Your task to perform on an android device: stop showing notifications on the lock screen Image 0: 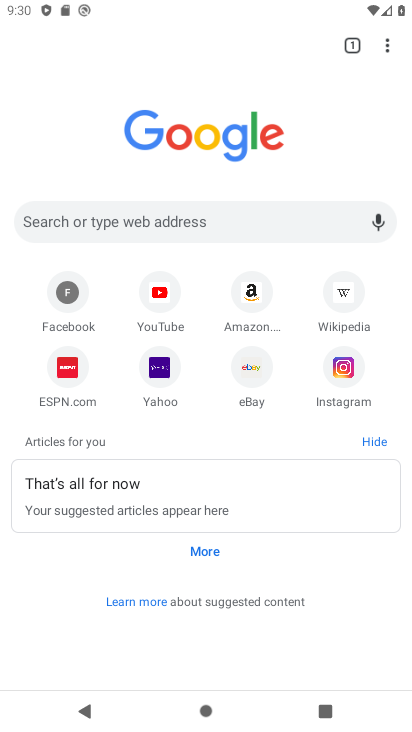
Step 0: press home button
Your task to perform on an android device: stop showing notifications on the lock screen Image 1: 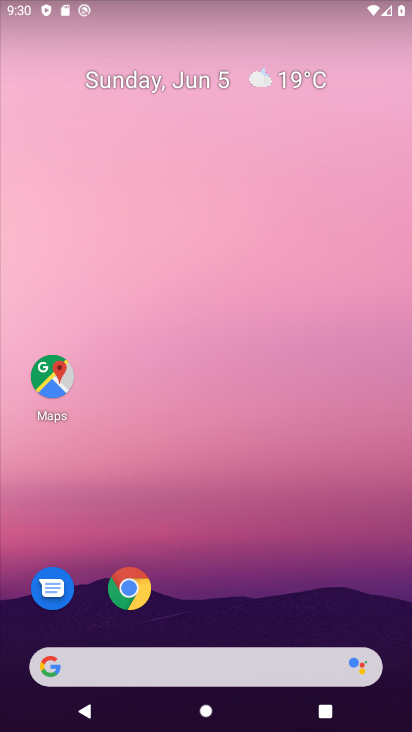
Step 1: drag from (327, 545) to (361, 135)
Your task to perform on an android device: stop showing notifications on the lock screen Image 2: 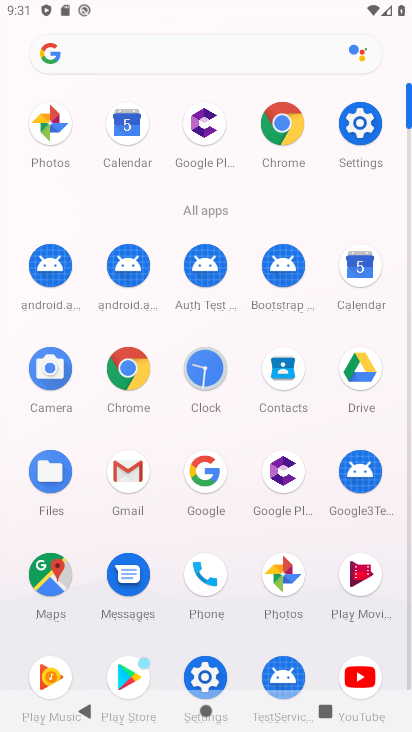
Step 2: click (366, 118)
Your task to perform on an android device: stop showing notifications on the lock screen Image 3: 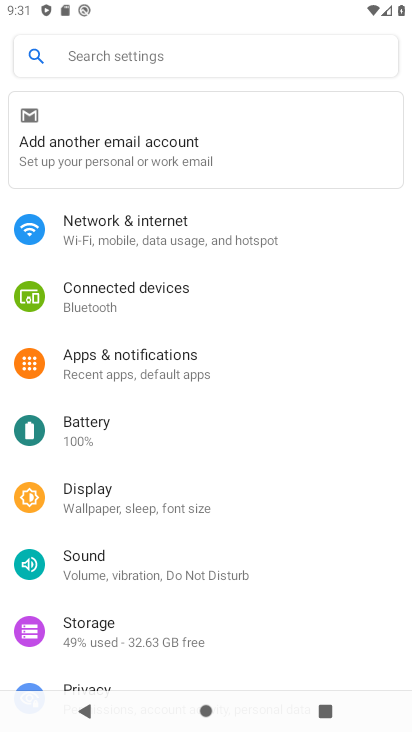
Step 3: drag from (342, 502) to (338, 335)
Your task to perform on an android device: stop showing notifications on the lock screen Image 4: 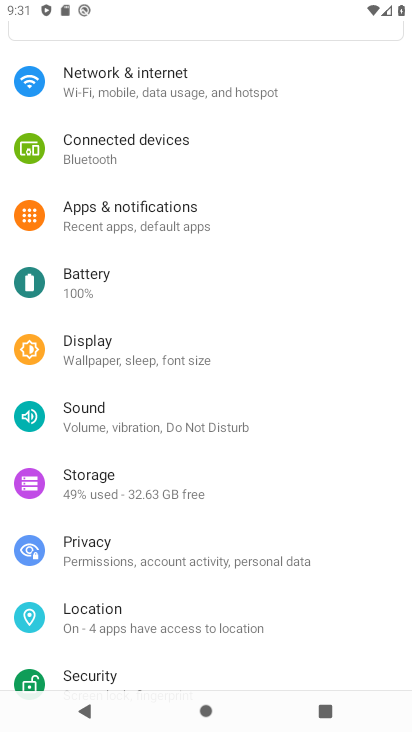
Step 4: drag from (355, 578) to (367, 358)
Your task to perform on an android device: stop showing notifications on the lock screen Image 5: 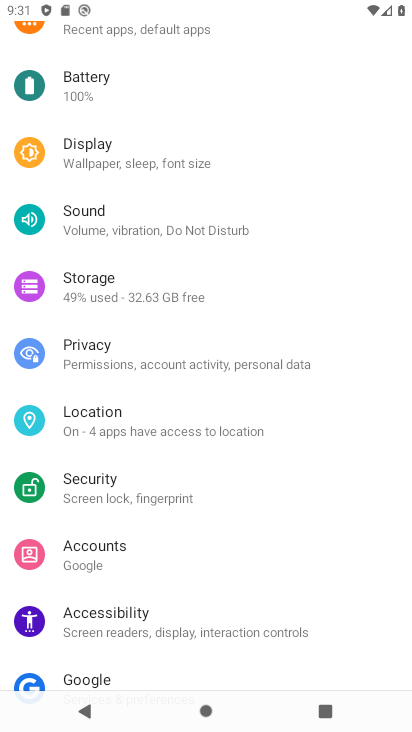
Step 5: drag from (344, 551) to (340, 424)
Your task to perform on an android device: stop showing notifications on the lock screen Image 6: 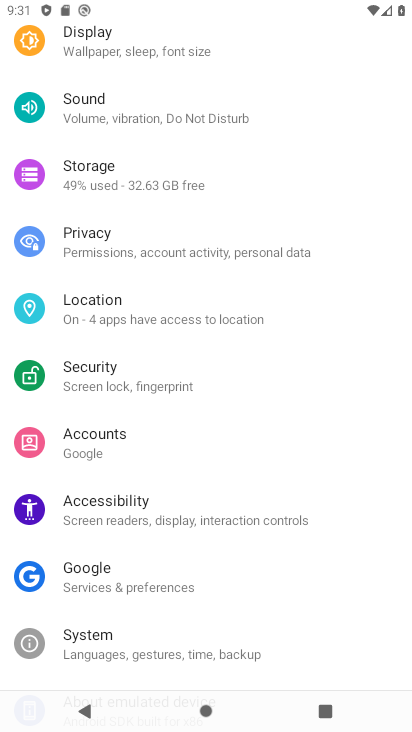
Step 6: drag from (341, 609) to (335, 383)
Your task to perform on an android device: stop showing notifications on the lock screen Image 7: 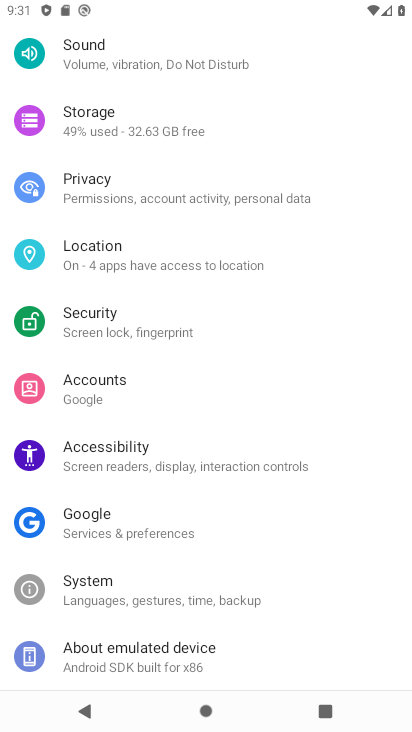
Step 7: drag from (362, 262) to (340, 401)
Your task to perform on an android device: stop showing notifications on the lock screen Image 8: 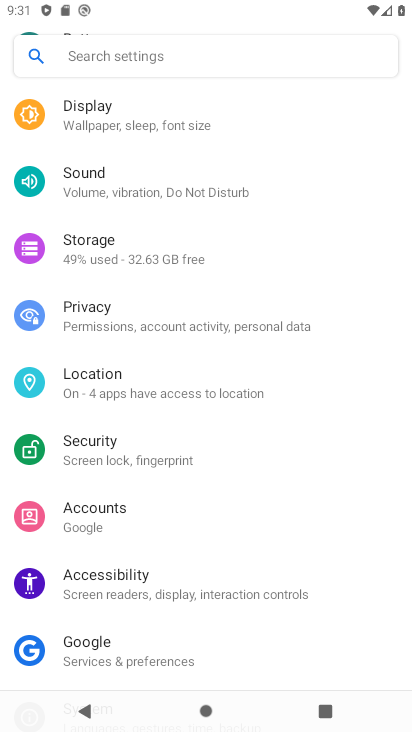
Step 8: drag from (357, 223) to (361, 337)
Your task to perform on an android device: stop showing notifications on the lock screen Image 9: 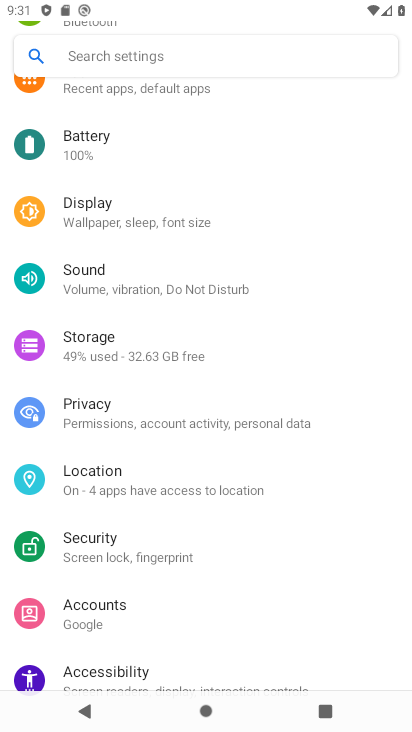
Step 9: drag from (361, 225) to (354, 365)
Your task to perform on an android device: stop showing notifications on the lock screen Image 10: 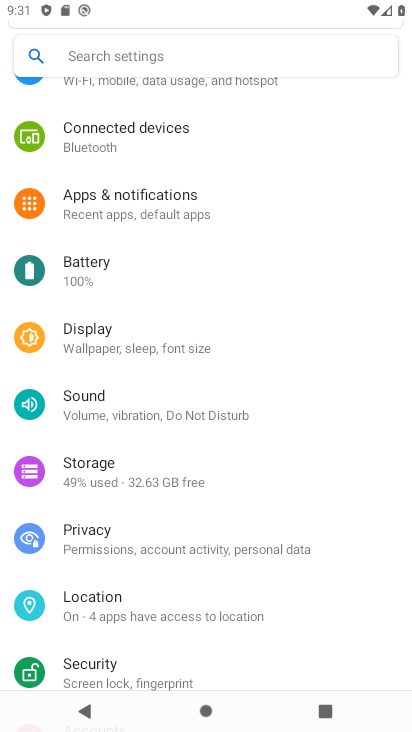
Step 10: drag from (327, 217) to (323, 370)
Your task to perform on an android device: stop showing notifications on the lock screen Image 11: 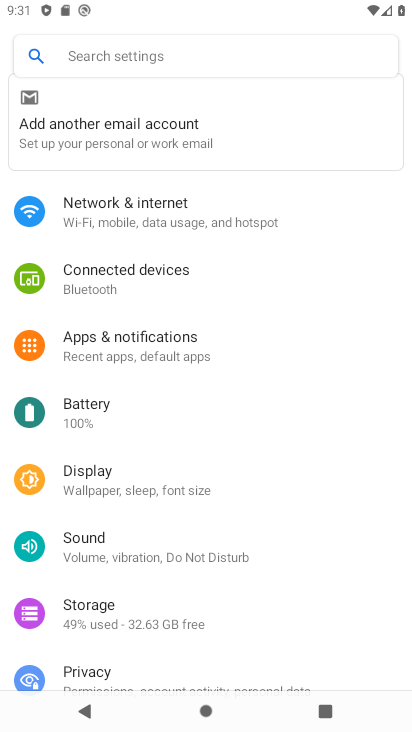
Step 11: click (226, 364)
Your task to perform on an android device: stop showing notifications on the lock screen Image 12: 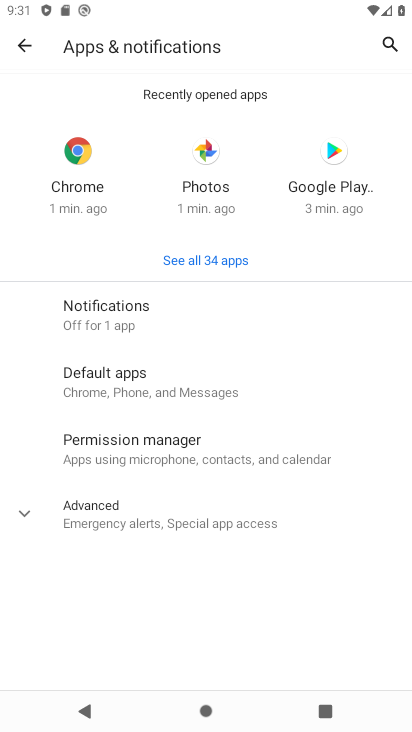
Step 12: click (150, 331)
Your task to perform on an android device: stop showing notifications on the lock screen Image 13: 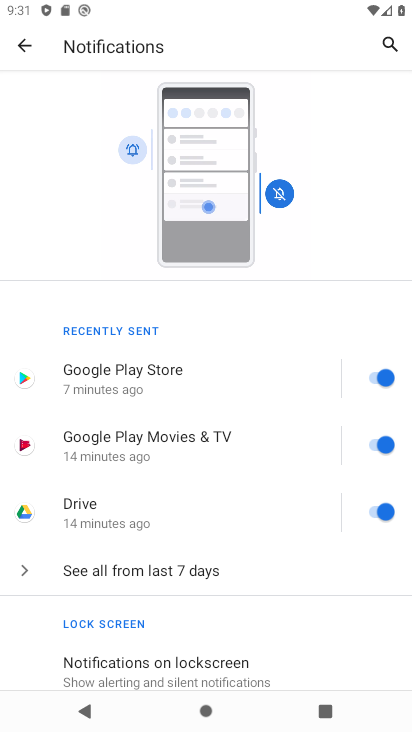
Step 13: drag from (266, 562) to (273, 406)
Your task to perform on an android device: stop showing notifications on the lock screen Image 14: 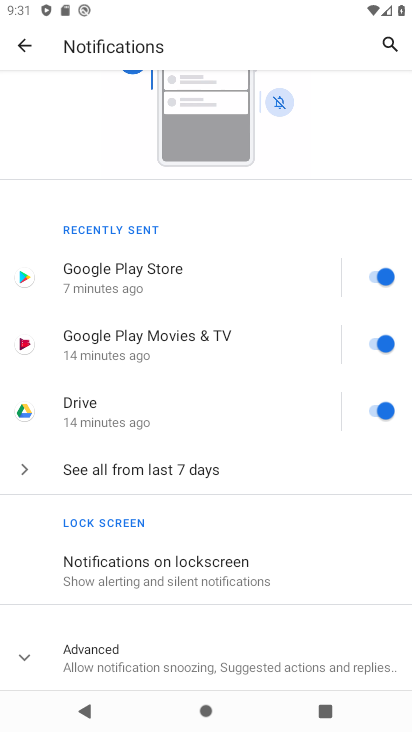
Step 14: drag from (296, 591) to (311, 432)
Your task to perform on an android device: stop showing notifications on the lock screen Image 15: 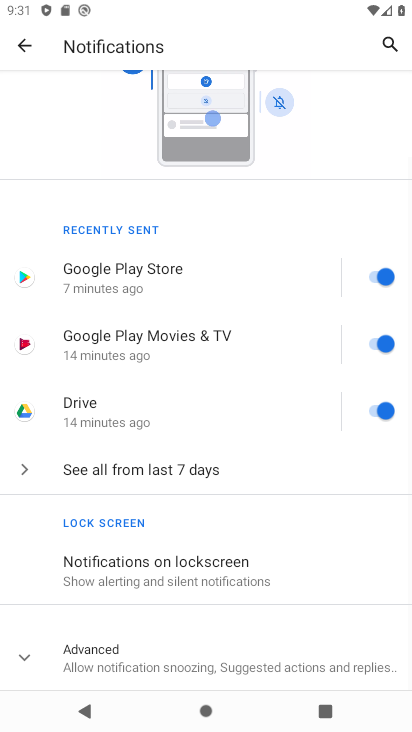
Step 15: click (220, 577)
Your task to perform on an android device: stop showing notifications on the lock screen Image 16: 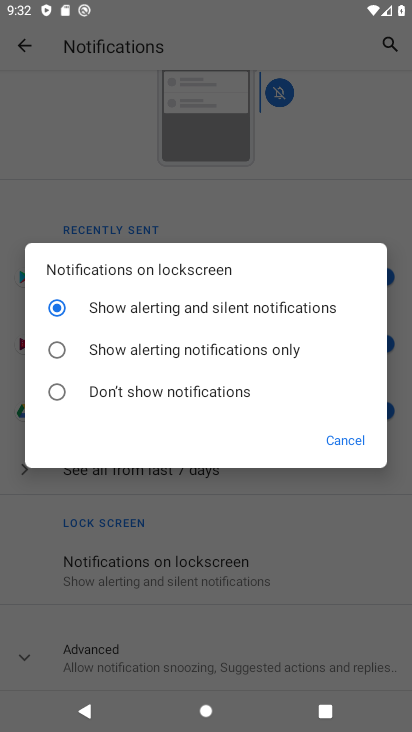
Step 16: click (85, 388)
Your task to perform on an android device: stop showing notifications on the lock screen Image 17: 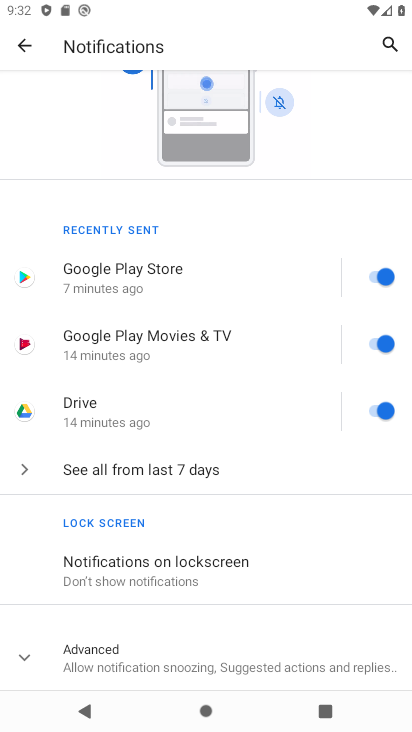
Step 17: task complete